Your task to perform on an android device: search for starred emails in the gmail app Image 0: 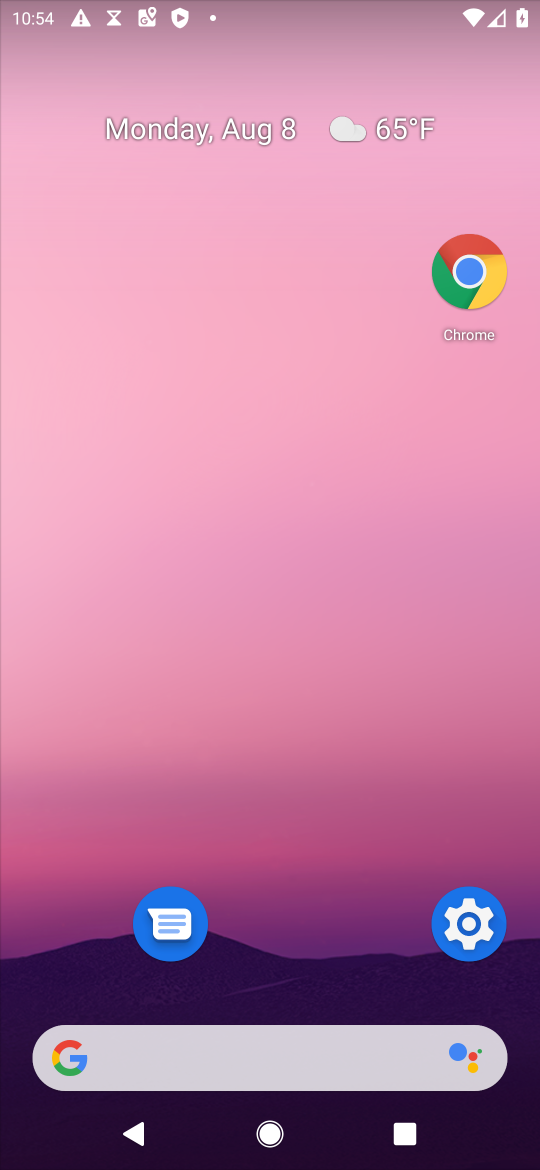
Step 0: drag from (310, 1033) to (228, 0)
Your task to perform on an android device: search for starred emails in the gmail app Image 1: 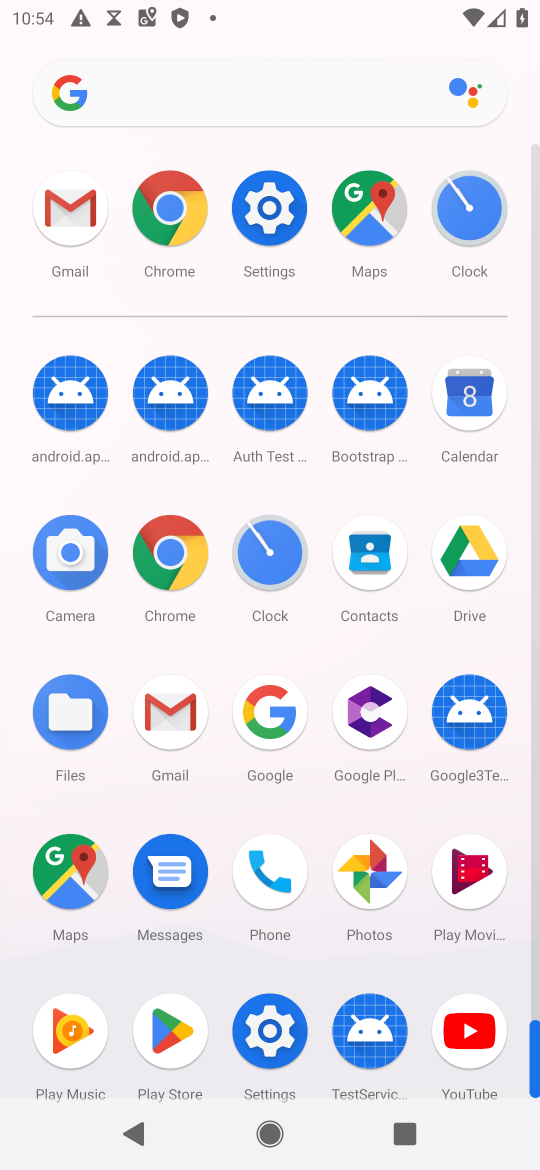
Step 1: click (57, 234)
Your task to perform on an android device: search for starred emails in the gmail app Image 2: 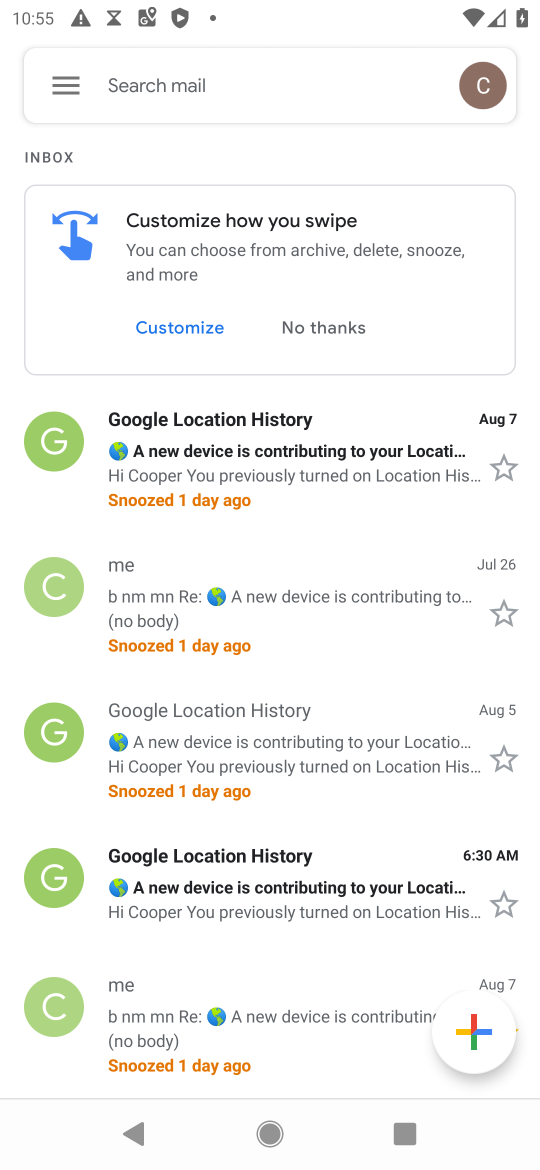
Step 2: click (75, 84)
Your task to perform on an android device: search for starred emails in the gmail app Image 3: 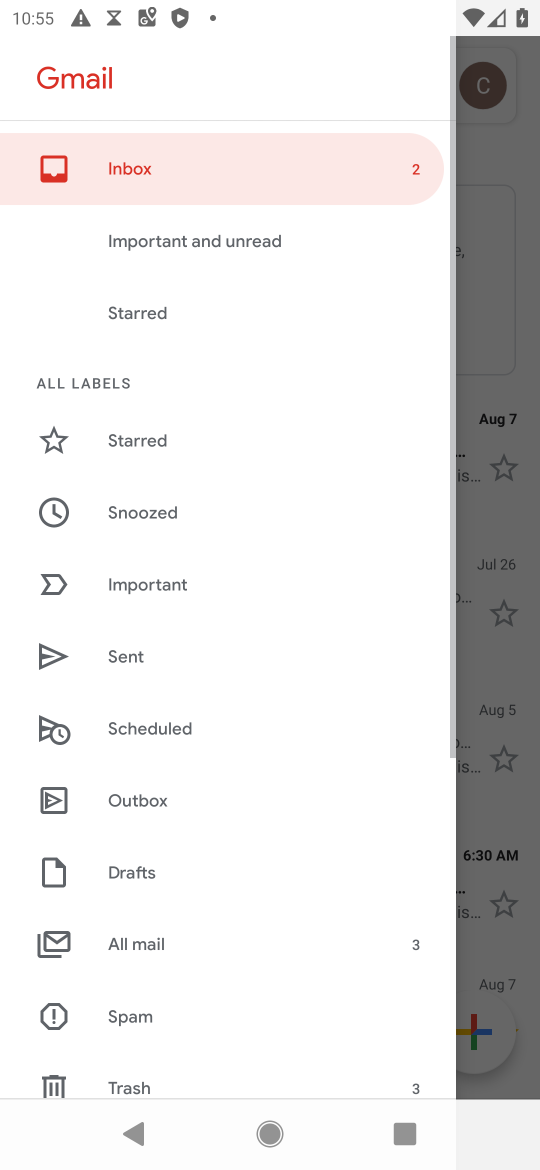
Step 3: click (127, 431)
Your task to perform on an android device: search for starred emails in the gmail app Image 4: 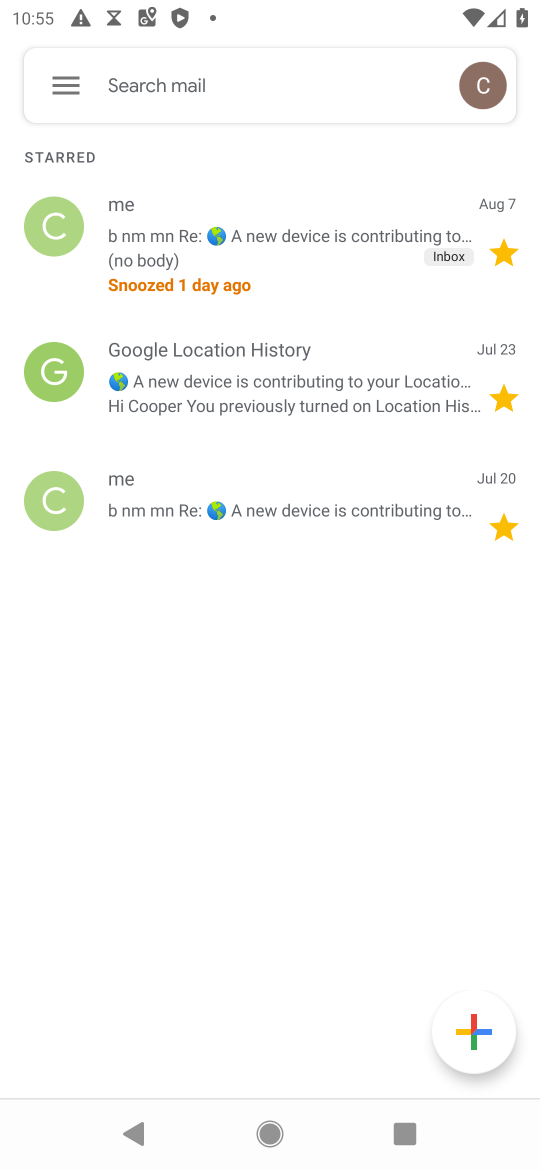
Step 4: task complete